Your task to perform on an android device: What's the weather going to be tomorrow? Image 0: 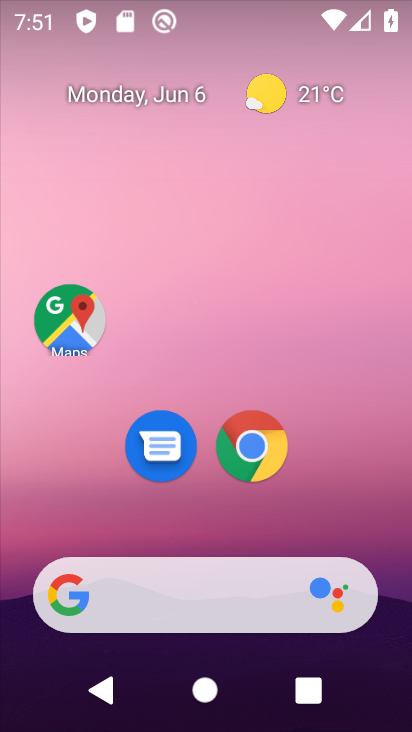
Step 0: click (212, 594)
Your task to perform on an android device: What's the weather going to be tomorrow? Image 1: 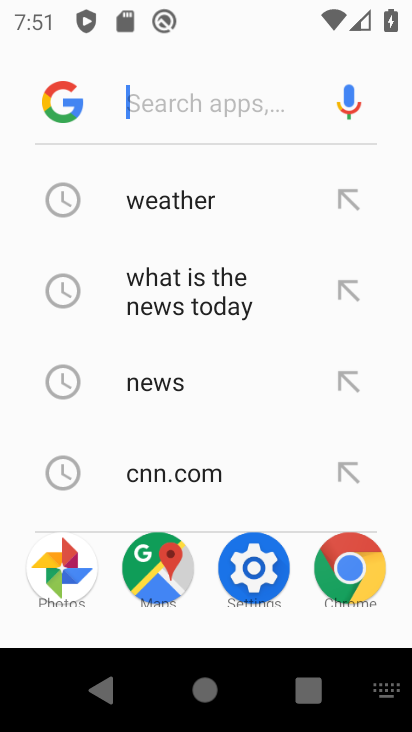
Step 1: click (245, 192)
Your task to perform on an android device: What's the weather going to be tomorrow? Image 2: 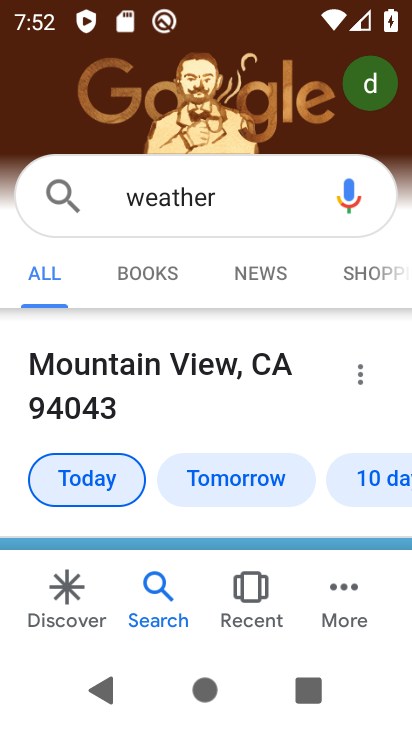
Step 2: click (254, 484)
Your task to perform on an android device: What's the weather going to be tomorrow? Image 3: 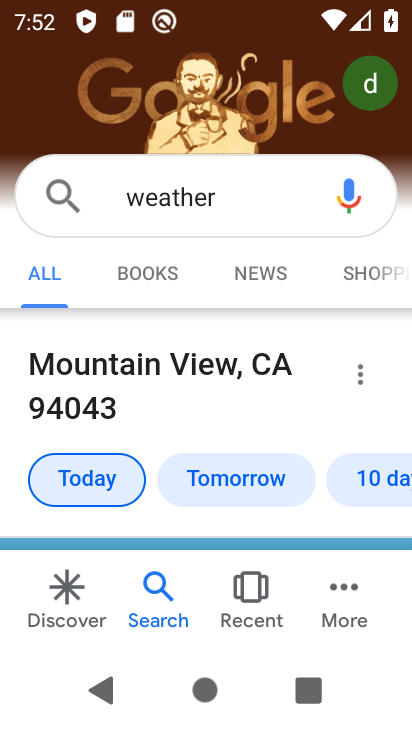
Step 3: click (254, 484)
Your task to perform on an android device: What's the weather going to be tomorrow? Image 4: 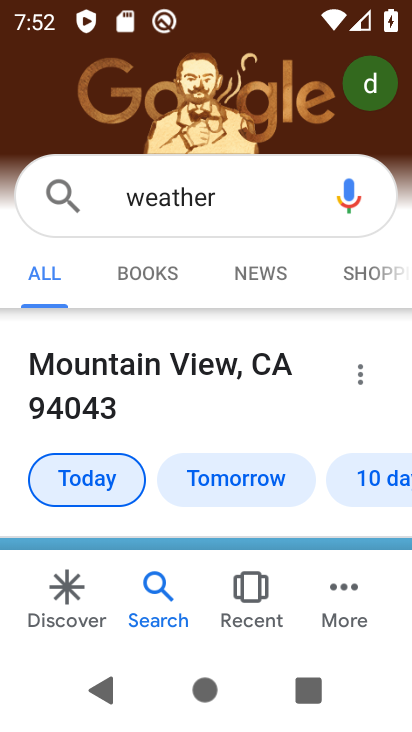
Step 4: click (254, 484)
Your task to perform on an android device: What's the weather going to be tomorrow? Image 5: 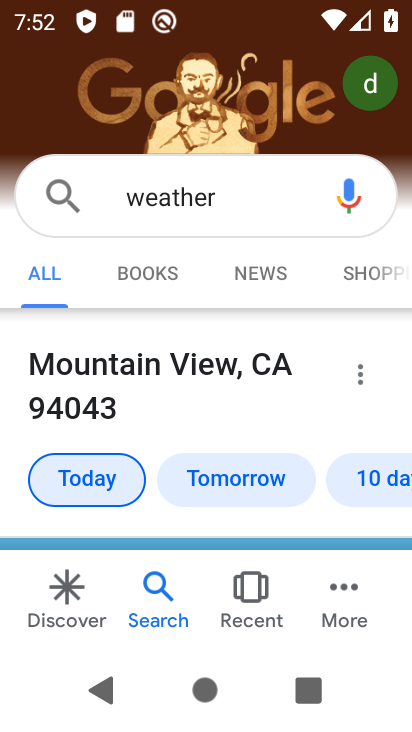
Step 5: click (254, 484)
Your task to perform on an android device: What's the weather going to be tomorrow? Image 6: 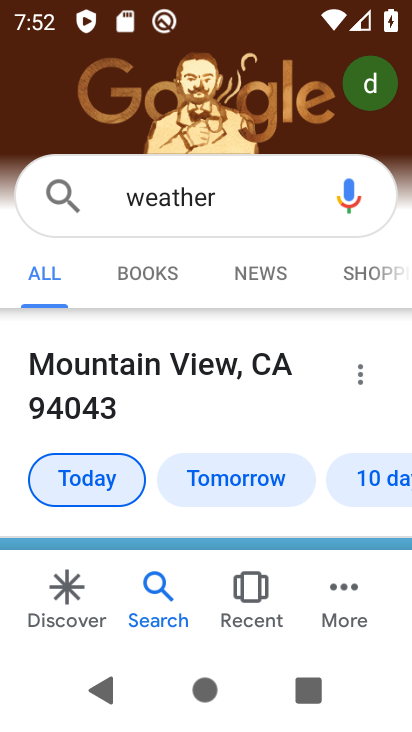
Step 6: drag from (360, 530) to (346, 196)
Your task to perform on an android device: What's the weather going to be tomorrow? Image 7: 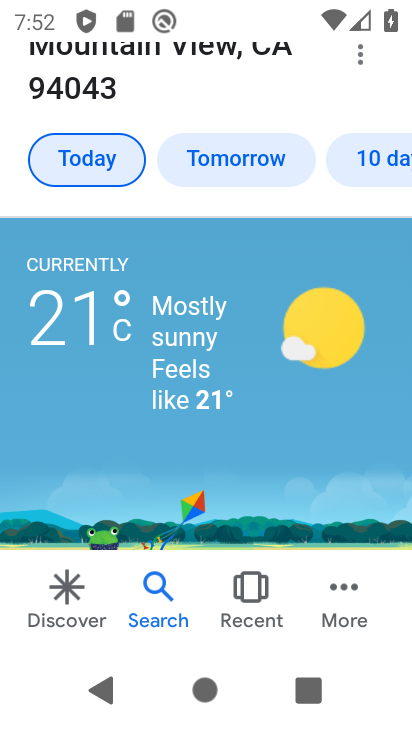
Step 7: click (230, 154)
Your task to perform on an android device: What's the weather going to be tomorrow? Image 8: 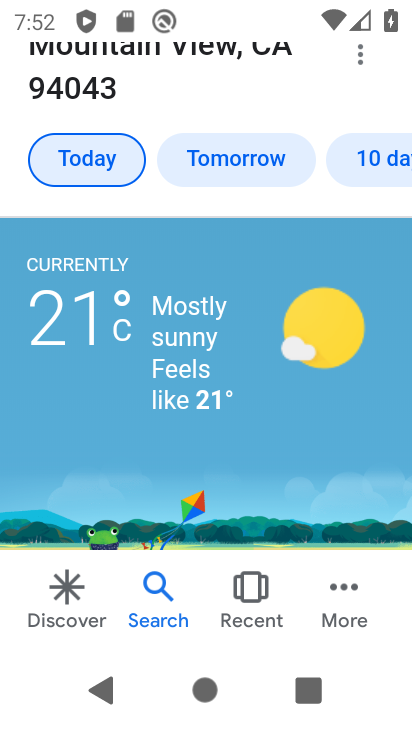
Step 8: click (230, 154)
Your task to perform on an android device: What's the weather going to be tomorrow? Image 9: 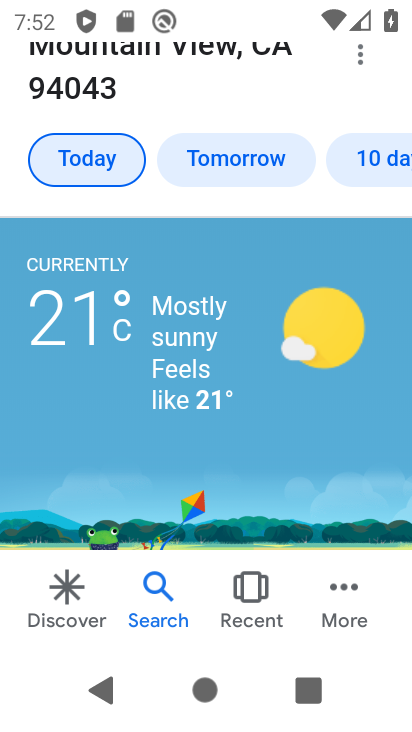
Step 9: click (230, 154)
Your task to perform on an android device: What's the weather going to be tomorrow? Image 10: 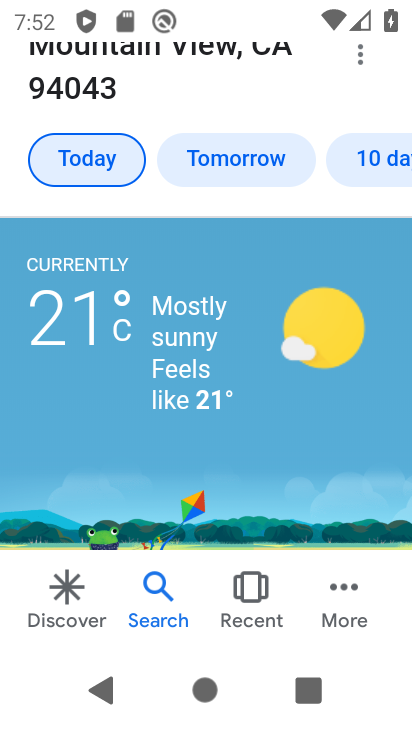
Step 10: click (230, 154)
Your task to perform on an android device: What's the weather going to be tomorrow? Image 11: 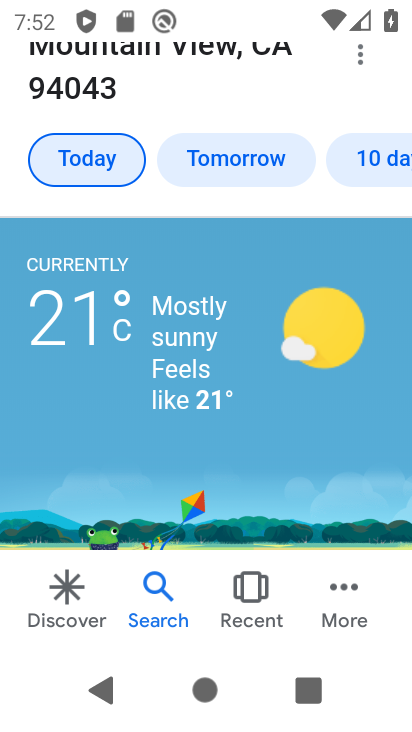
Step 11: click (230, 154)
Your task to perform on an android device: What's the weather going to be tomorrow? Image 12: 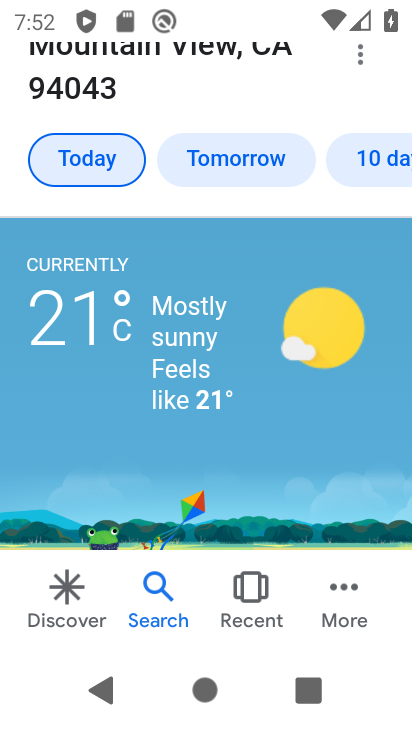
Step 12: click (230, 154)
Your task to perform on an android device: What's the weather going to be tomorrow? Image 13: 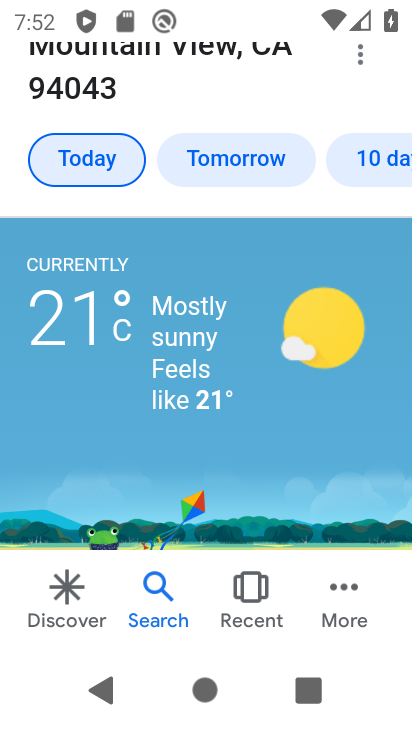
Step 13: click (230, 154)
Your task to perform on an android device: What's the weather going to be tomorrow? Image 14: 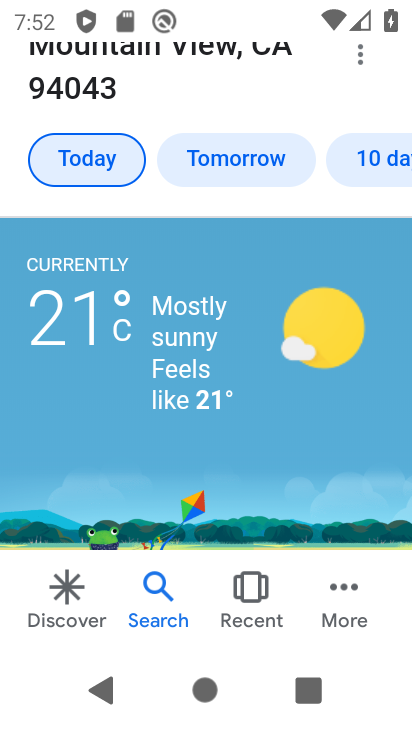
Step 14: click (230, 154)
Your task to perform on an android device: What's the weather going to be tomorrow? Image 15: 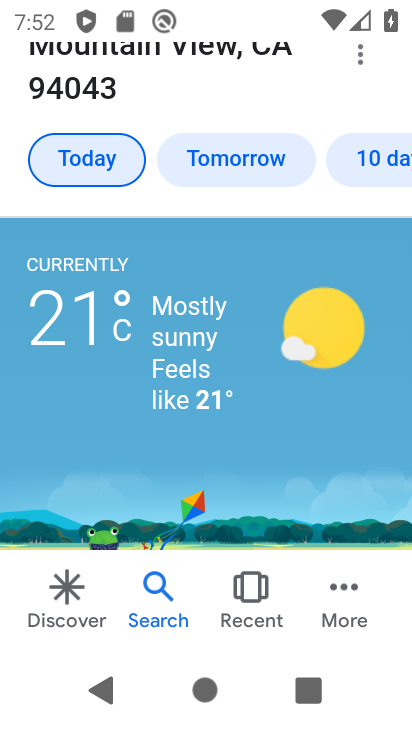
Step 15: task complete